Your task to perform on an android device: Open the stopwatch Image 0: 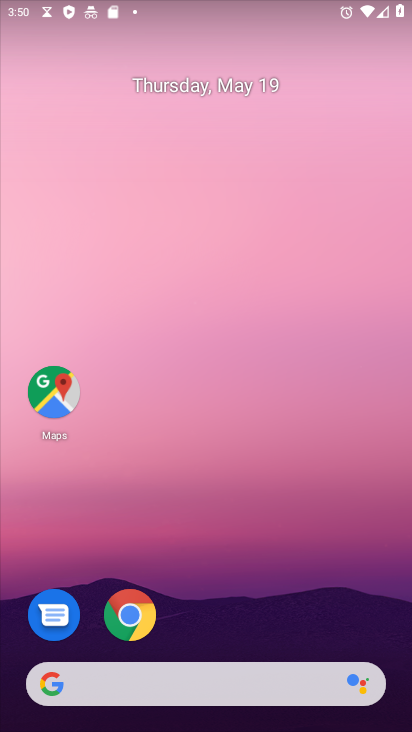
Step 0: drag from (306, 701) to (211, 46)
Your task to perform on an android device: Open the stopwatch Image 1: 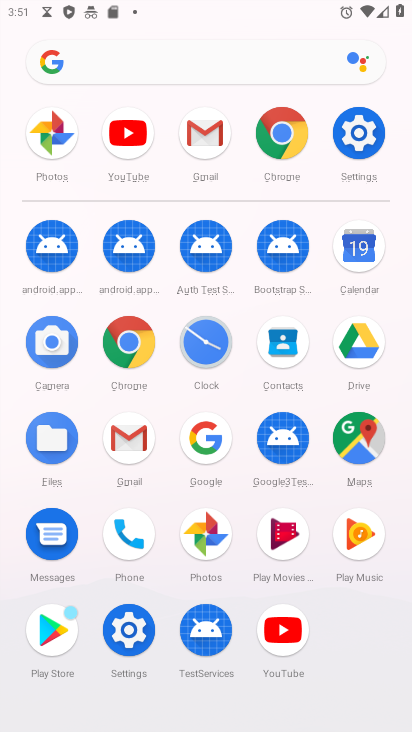
Step 1: click (224, 341)
Your task to perform on an android device: Open the stopwatch Image 2: 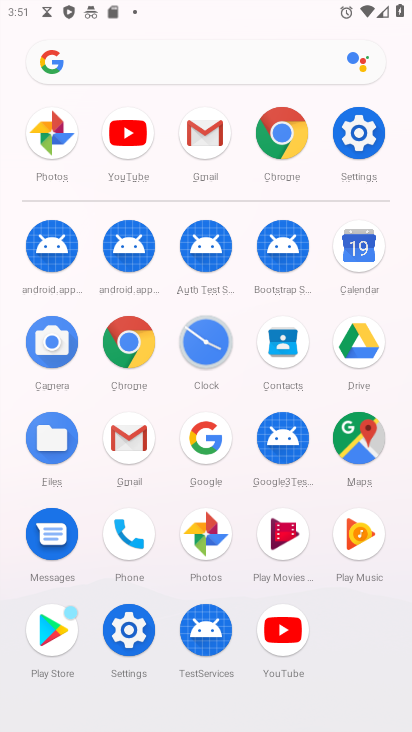
Step 2: click (224, 341)
Your task to perform on an android device: Open the stopwatch Image 3: 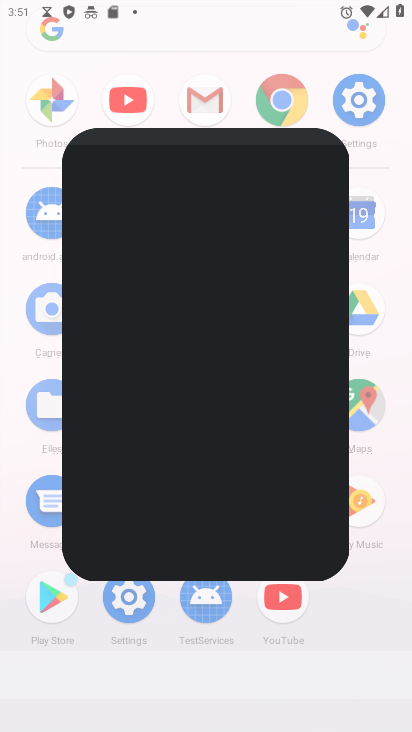
Step 3: click (224, 341)
Your task to perform on an android device: Open the stopwatch Image 4: 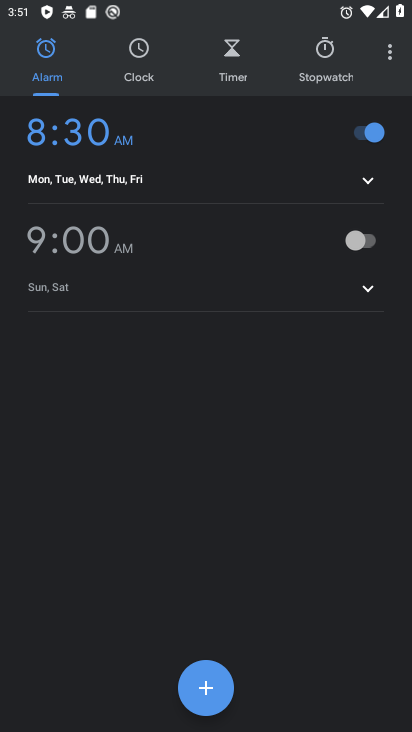
Step 4: click (311, 55)
Your task to perform on an android device: Open the stopwatch Image 5: 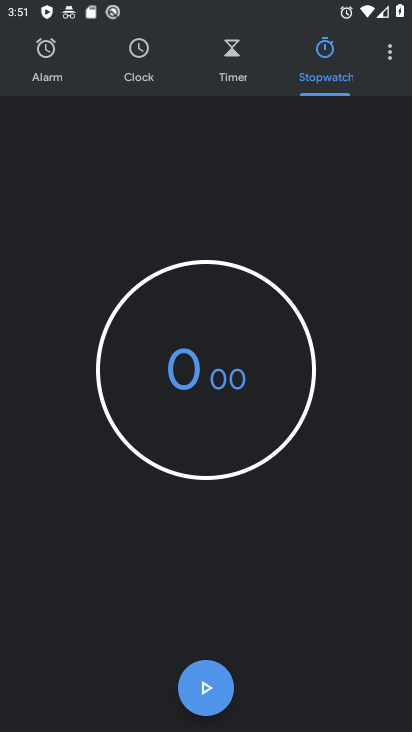
Step 5: task complete